Your task to perform on an android device: Open Wikipedia Image 0: 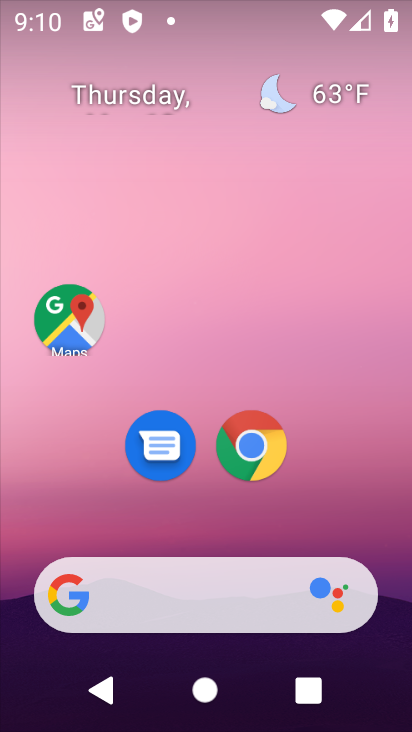
Step 0: click (242, 470)
Your task to perform on an android device: Open Wikipedia Image 1: 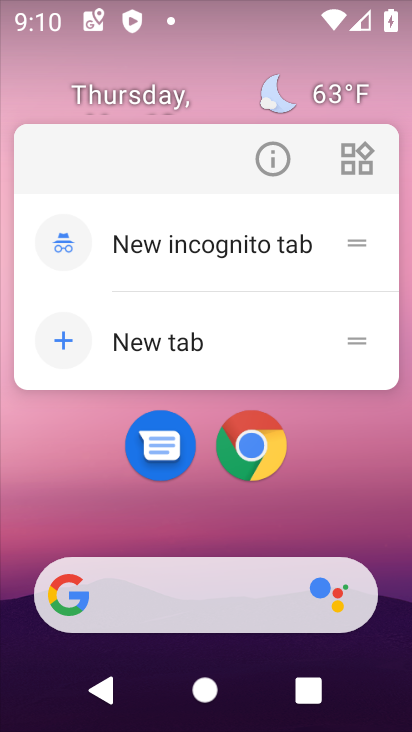
Step 1: click (246, 458)
Your task to perform on an android device: Open Wikipedia Image 2: 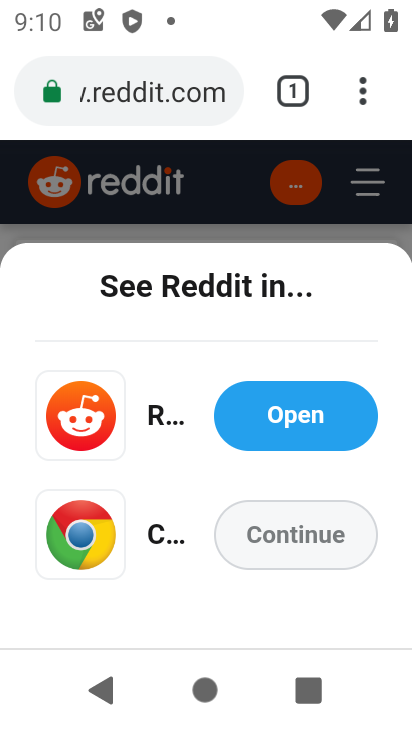
Step 2: click (158, 99)
Your task to perform on an android device: Open Wikipedia Image 3: 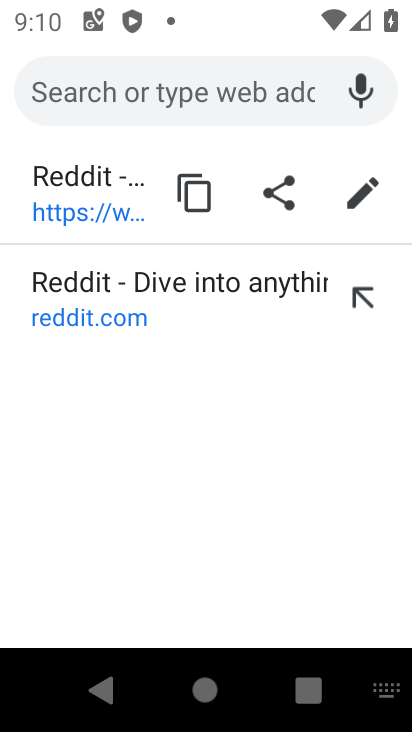
Step 3: type "wikipedia"
Your task to perform on an android device: Open Wikipedia Image 4: 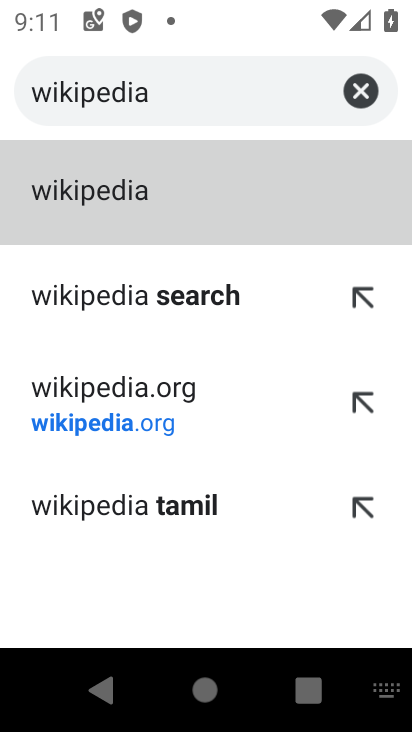
Step 4: click (175, 203)
Your task to perform on an android device: Open Wikipedia Image 5: 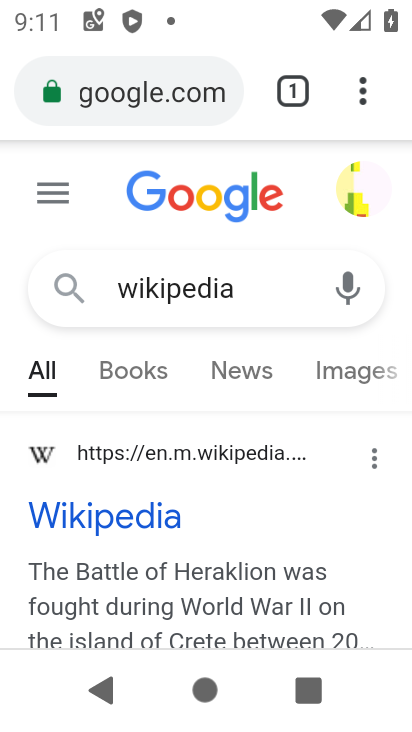
Step 5: task complete